Your task to perform on an android device: open wifi settings Image 0: 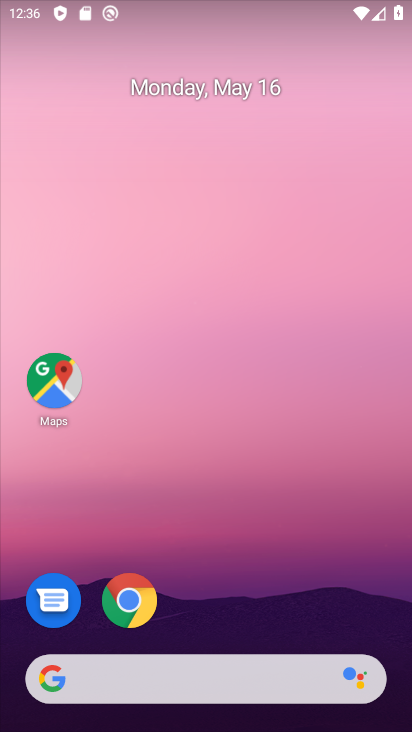
Step 0: drag from (376, 608) to (364, 117)
Your task to perform on an android device: open wifi settings Image 1: 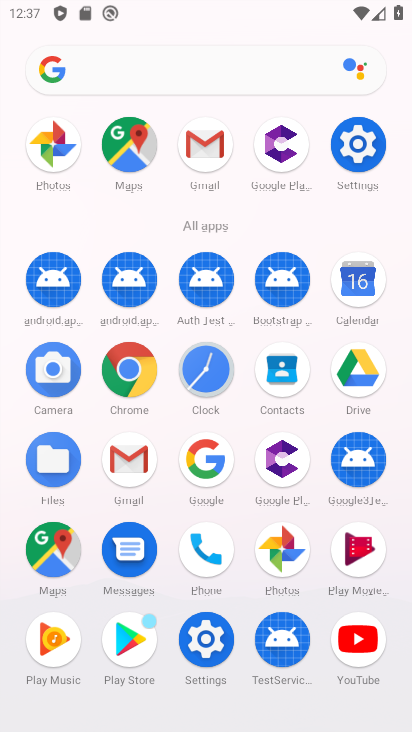
Step 1: click (366, 155)
Your task to perform on an android device: open wifi settings Image 2: 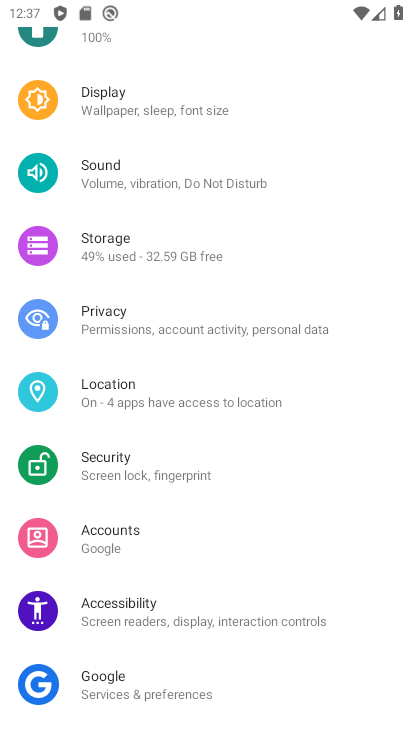
Step 2: drag from (351, 563) to (361, 407)
Your task to perform on an android device: open wifi settings Image 3: 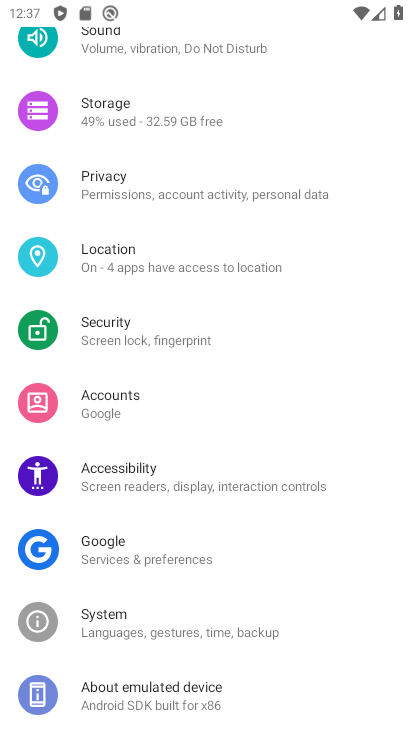
Step 3: drag from (347, 651) to (352, 503)
Your task to perform on an android device: open wifi settings Image 4: 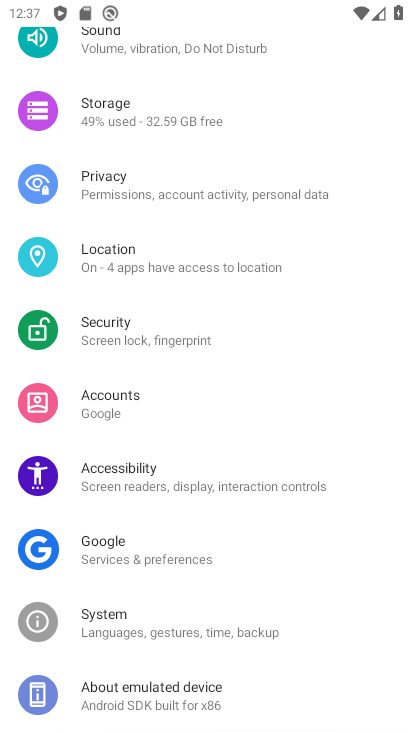
Step 4: drag from (348, 336) to (348, 445)
Your task to perform on an android device: open wifi settings Image 5: 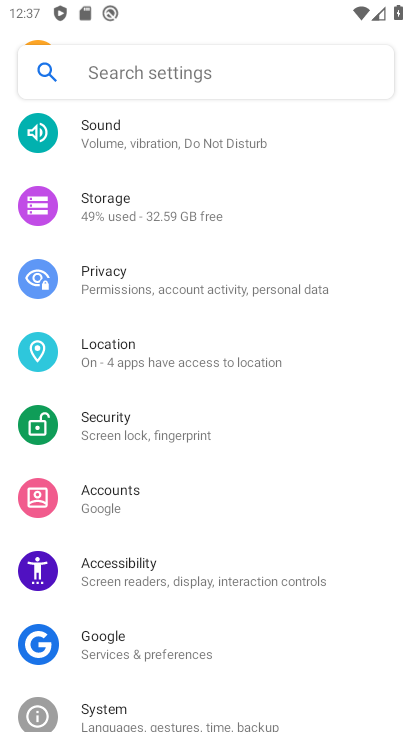
Step 5: drag from (366, 292) to (364, 445)
Your task to perform on an android device: open wifi settings Image 6: 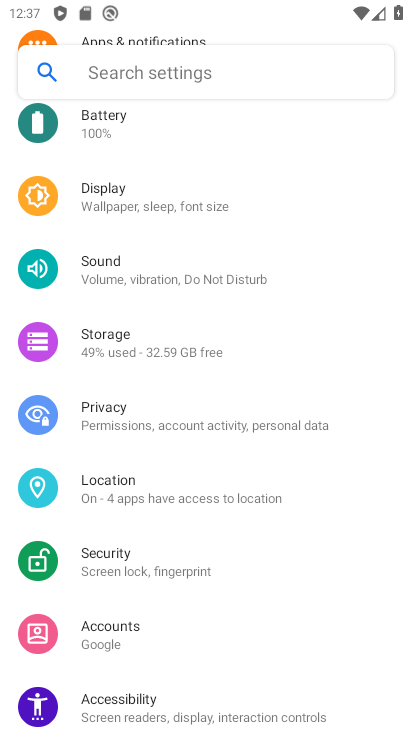
Step 6: drag from (359, 242) to (359, 387)
Your task to perform on an android device: open wifi settings Image 7: 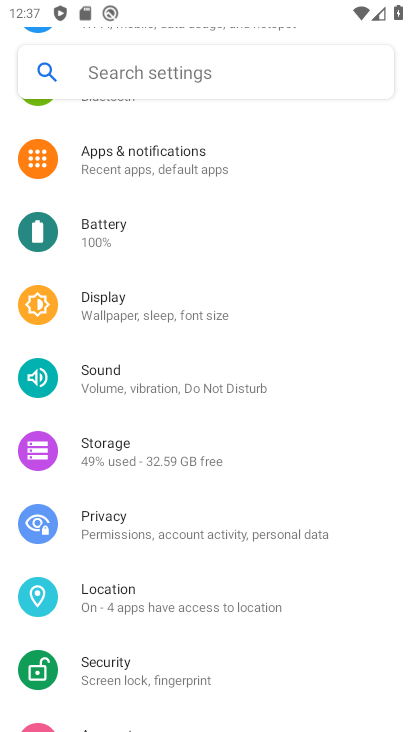
Step 7: drag from (360, 265) to (360, 405)
Your task to perform on an android device: open wifi settings Image 8: 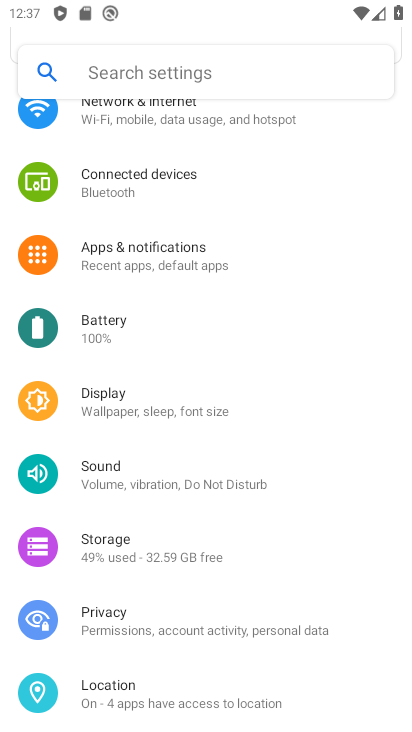
Step 8: drag from (353, 298) to (354, 423)
Your task to perform on an android device: open wifi settings Image 9: 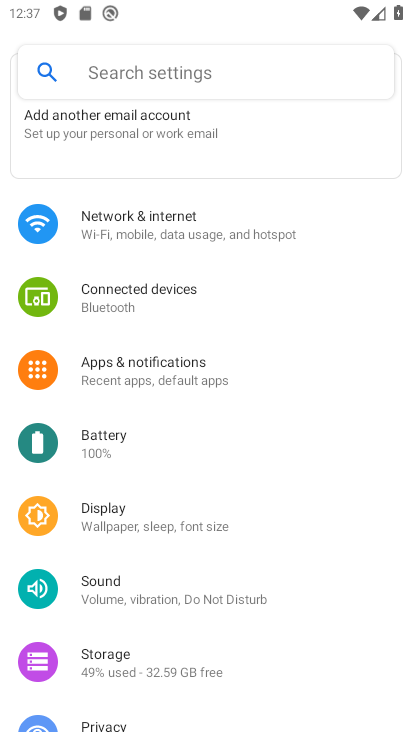
Step 9: drag from (349, 216) to (349, 347)
Your task to perform on an android device: open wifi settings Image 10: 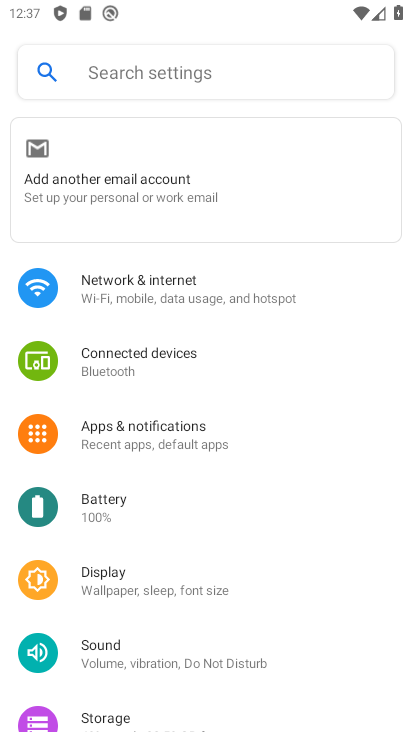
Step 10: click (236, 290)
Your task to perform on an android device: open wifi settings Image 11: 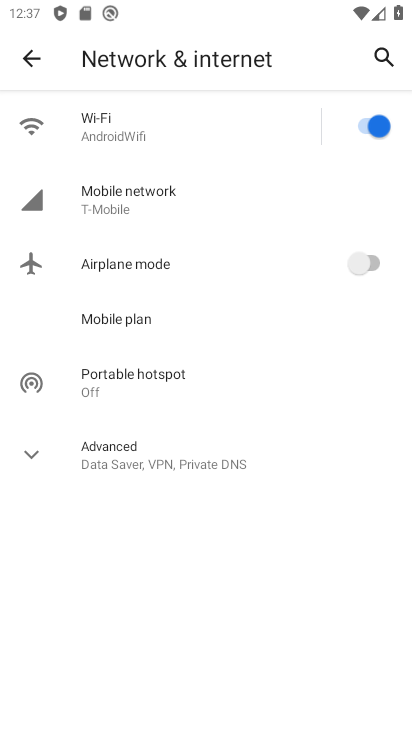
Step 11: click (156, 131)
Your task to perform on an android device: open wifi settings Image 12: 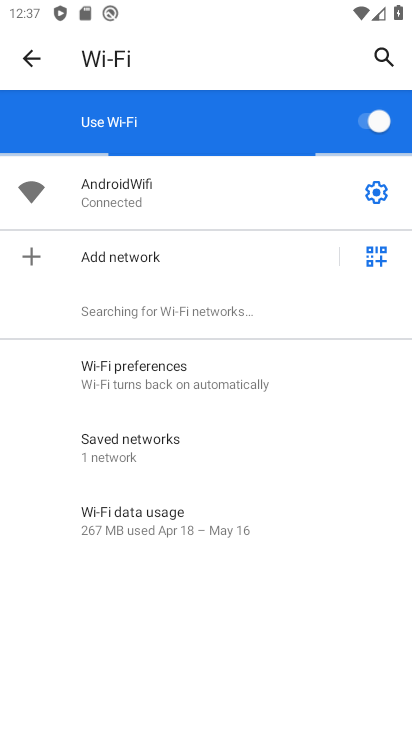
Step 12: task complete